Your task to perform on an android device: turn off notifications in google photos Image 0: 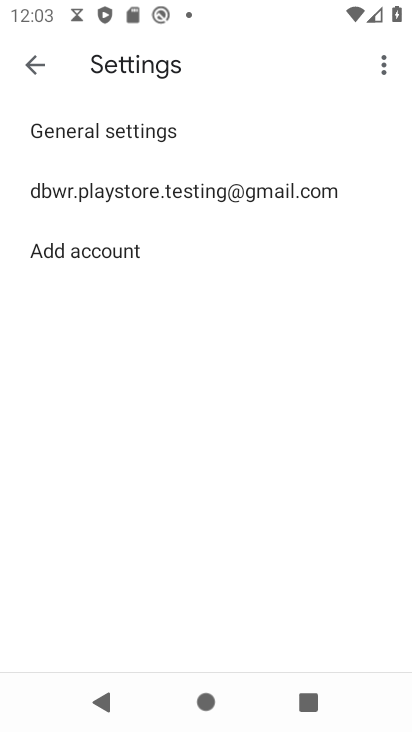
Step 0: press home button
Your task to perform on an android device: turn off notifications in google photos Image 1: 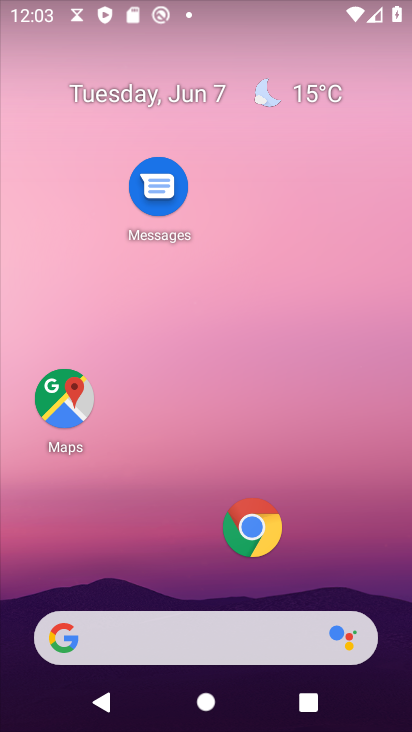
Step 1: drag from (174, 607) to (164, 260)
Your task to perform on an android device: turn off notifications in google photos Image 2: 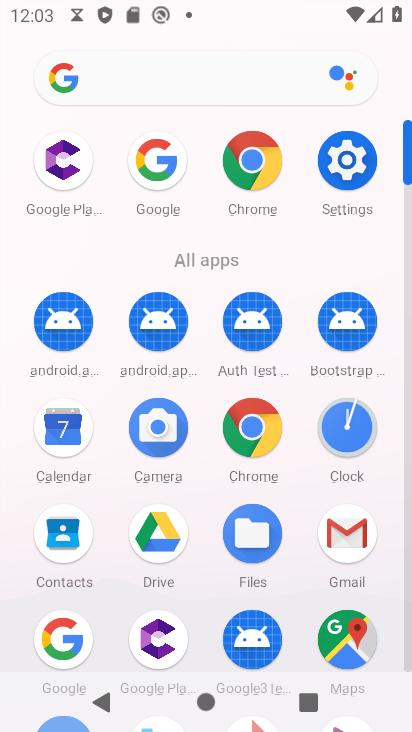
Step 2: drag from (193, 582) to (202, 192)
Your task to perform on an android device: turn off notifications in google photos Image 3: 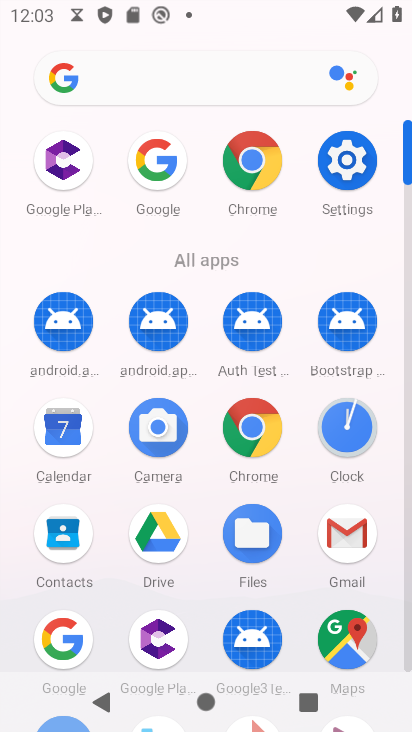
Step 3: drag from (201, 618) to (193, 92)
Your task to perform on an android device: turn off notifications in google photos Image 4: 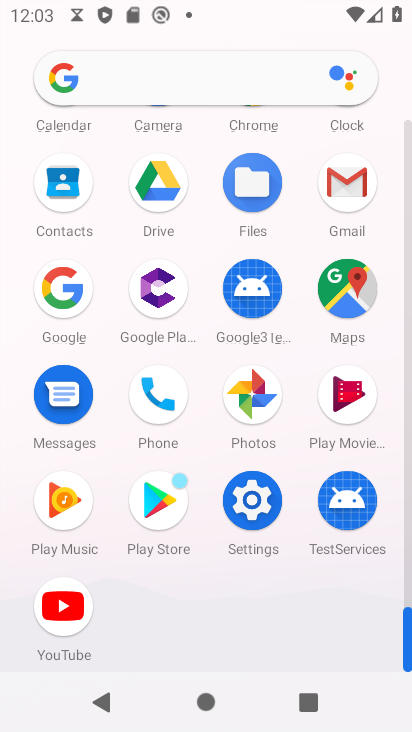
Step 4: click (248, 406)
Your task to perform on an android device: turn off notifications in google photos Image 5: 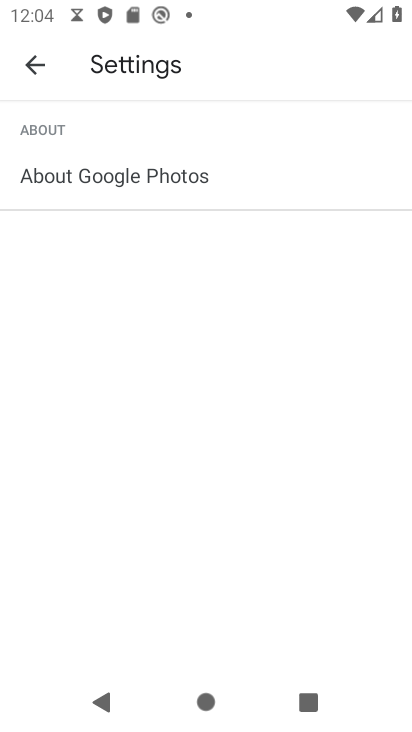
Step 5: click (36, 65)
Your task to perform on an android device: turn off notifications in google photos Image 6: 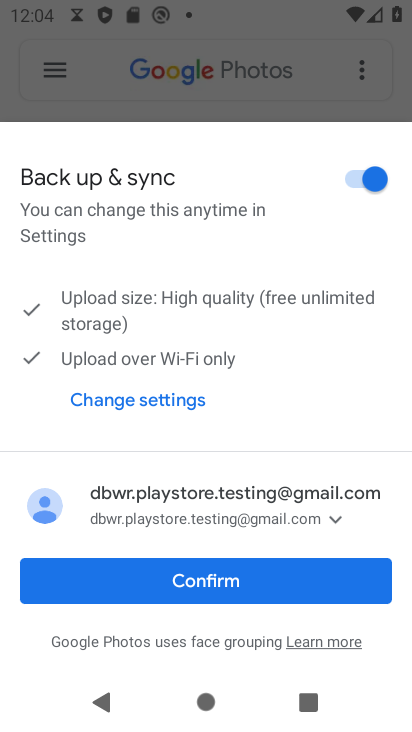
Step 6: click (187, 589)
Your task to perform on an android device: turn off notifications in google photos Image 7: 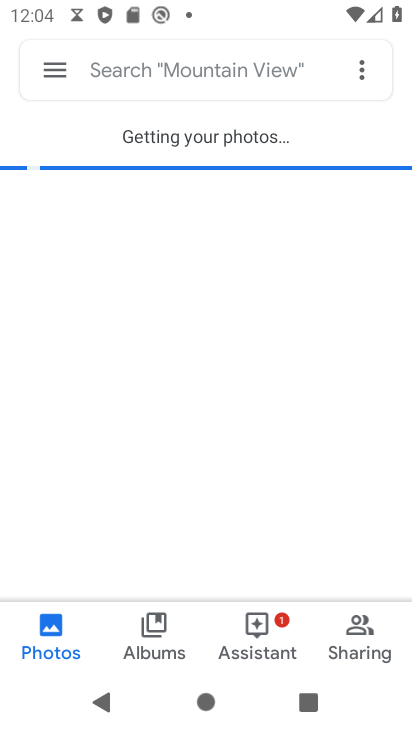
Step 7: click (49, 74)
Your task to perform on an android device: turn off notifications in google photos Image 8: 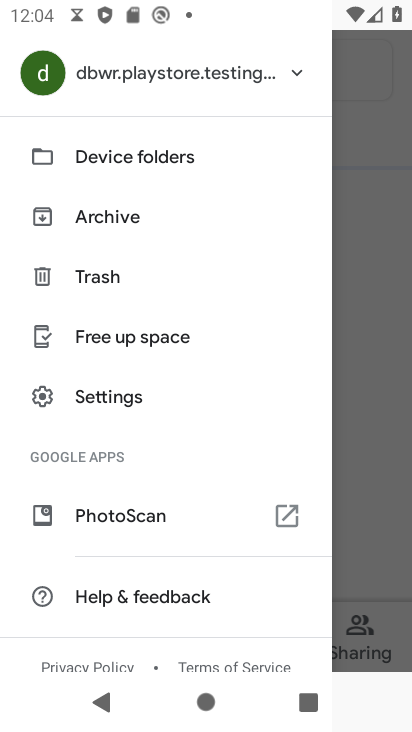
Step 8: click (67, 400)
Your task to perform on an android device: turn off notifications in google photos Image 9: 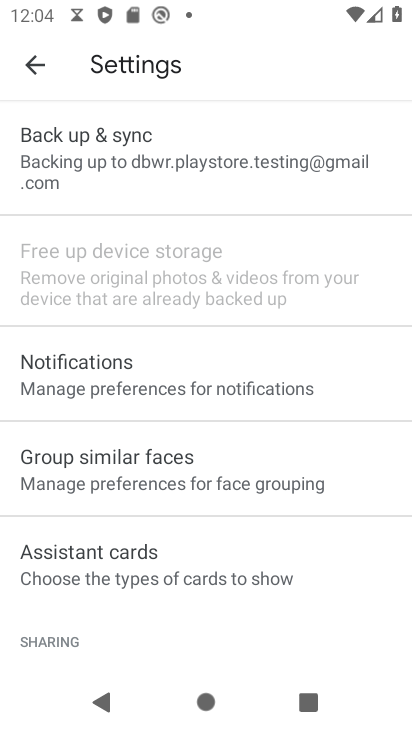
Step 9: click (57, 384)
Your task to perform on an android device: turn off notifications in google photos Image 10: 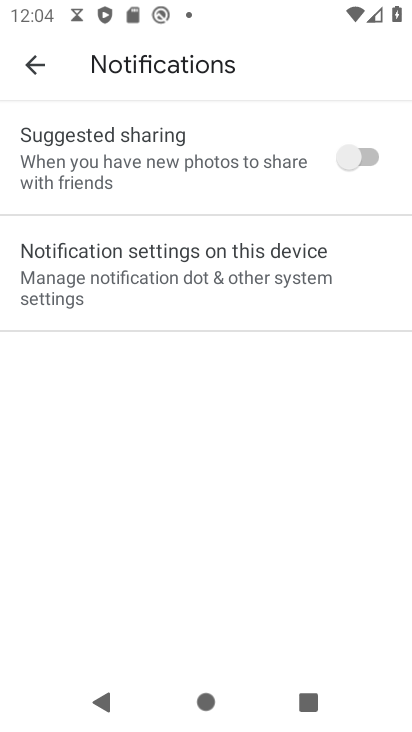
Step 10: click (178, 296)
Your task to perform on an android device: turn off notifications in google photos Image 11: 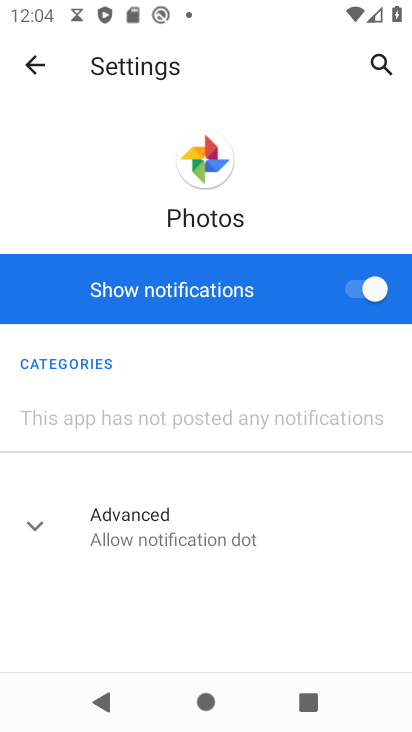
Step 11: click (355, 286)
Your task to perform on an android device: turn off notifications in google photos Image 12: 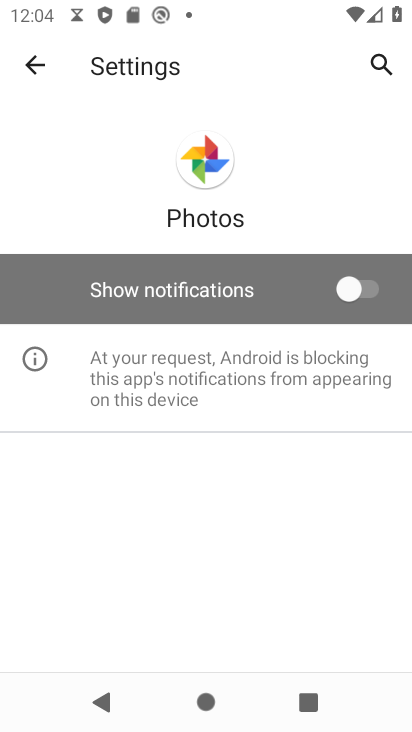
Step 12: task complete